Your task to perform on an android device: toggle translation in the chrome app Image 0: 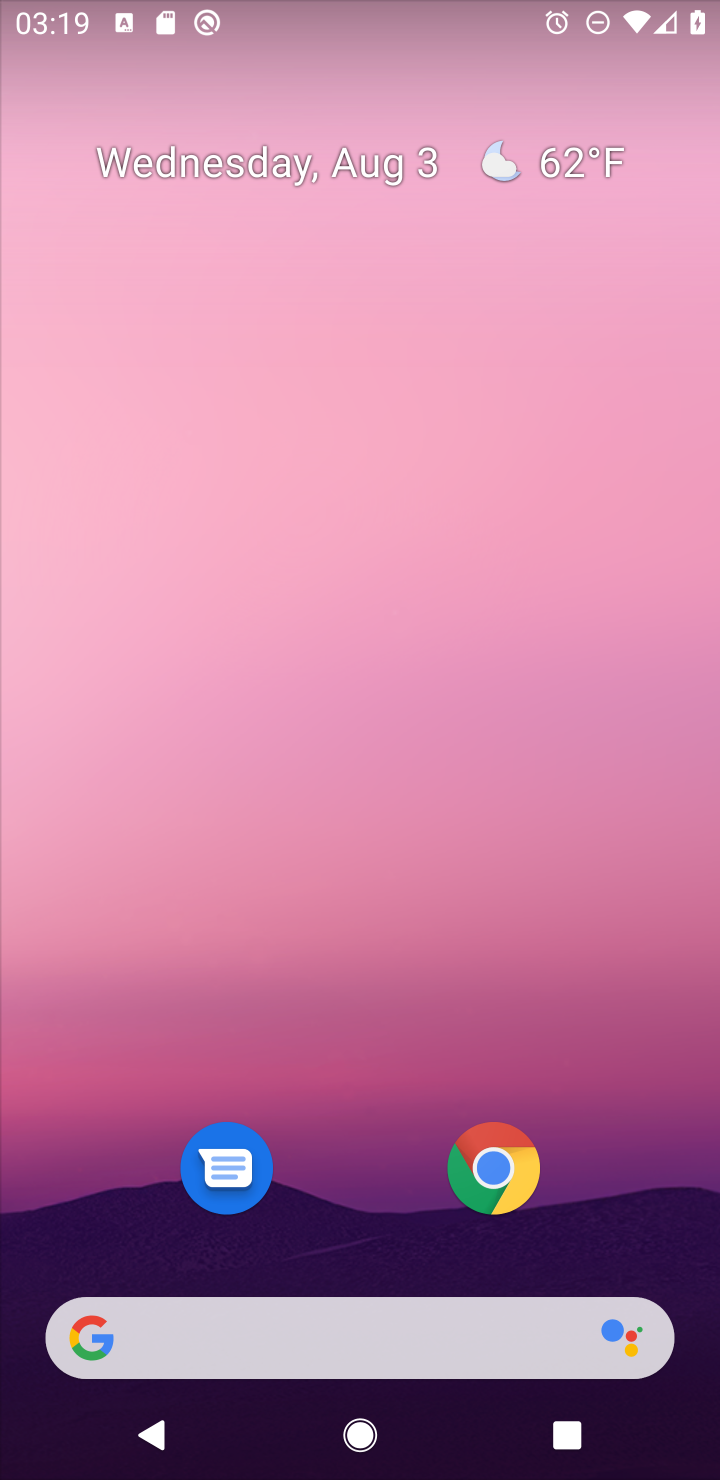
Step 0: click (496, 1171)
Your task to perform on an android device: toggle translation in the chrome app Image 1: 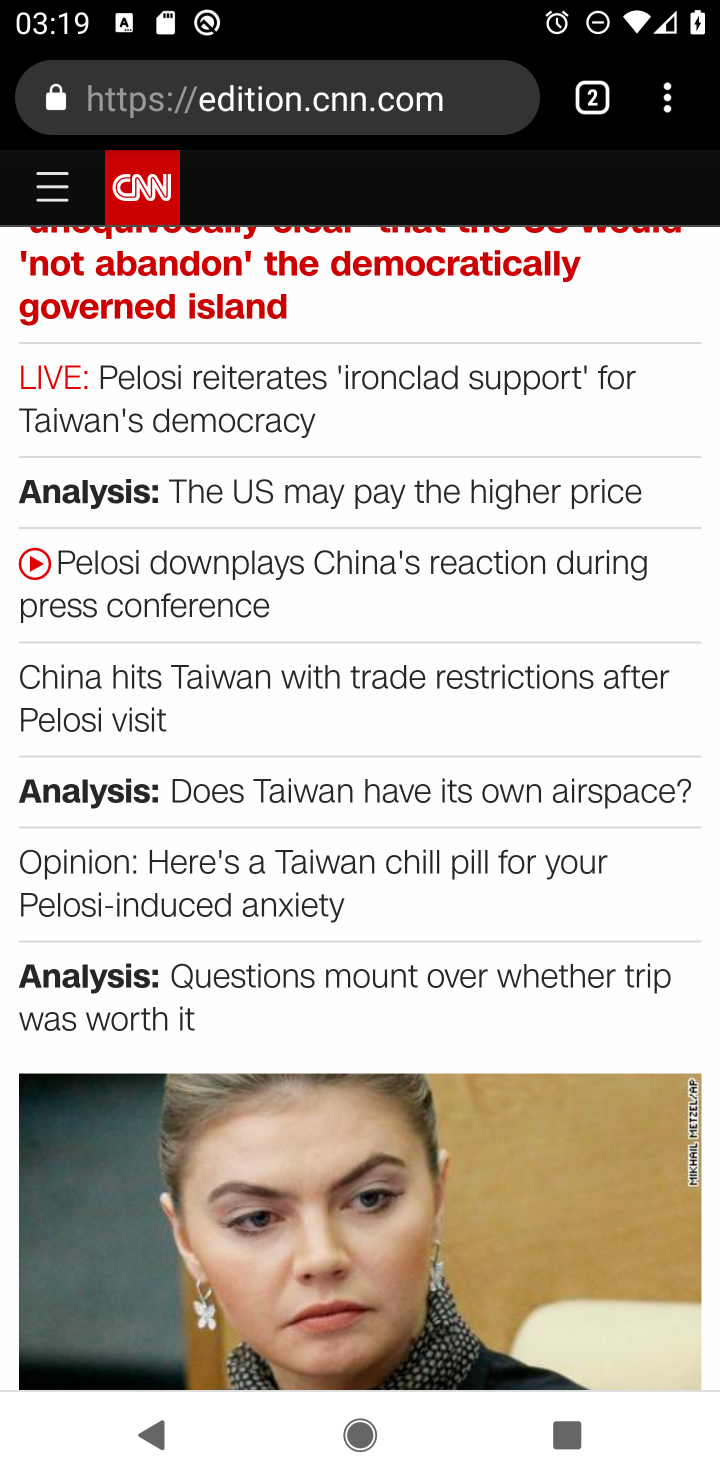
Step 1: click (659, 111)
Your task to perform on an android device: toggle translation in the chrome app Image 2: 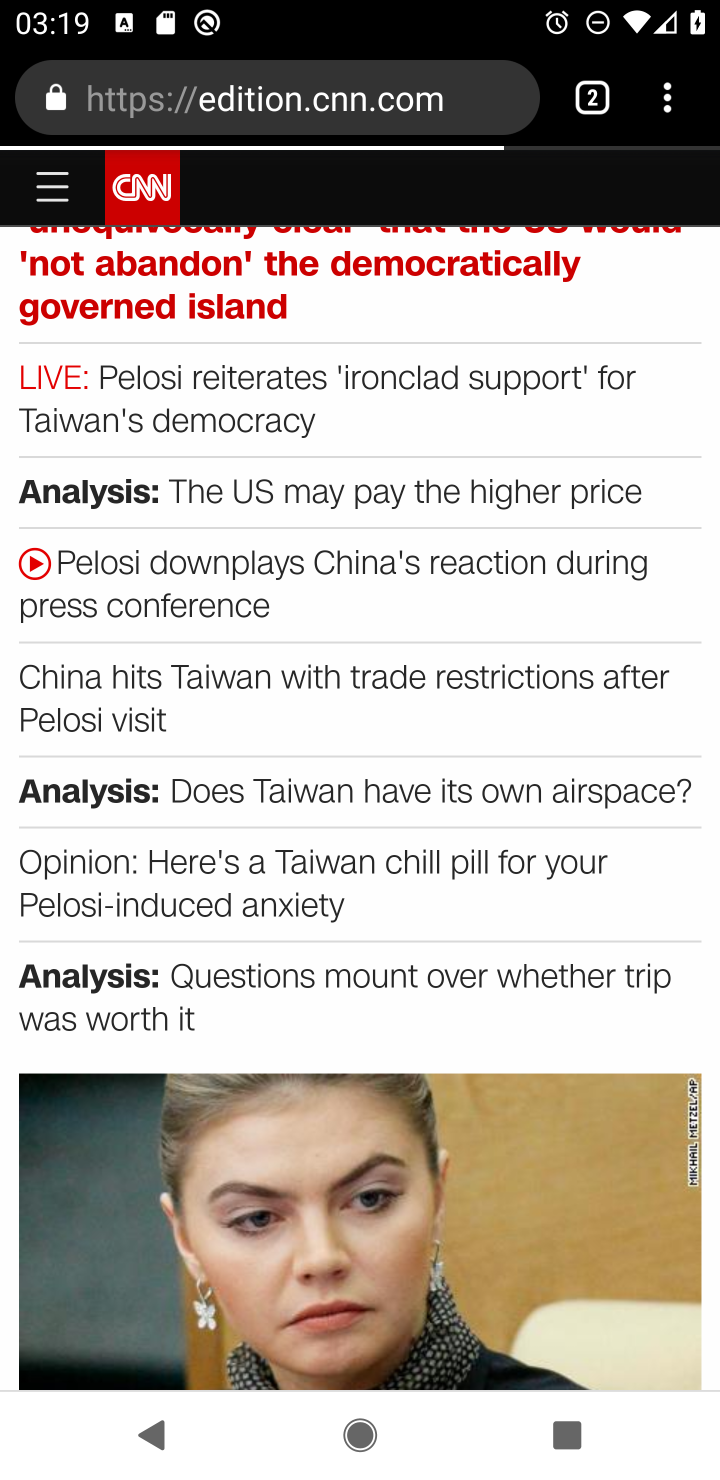
Step 2: click (661, 117)
Your task to perform on an android device: toggle translation in the chrome app Image 3: 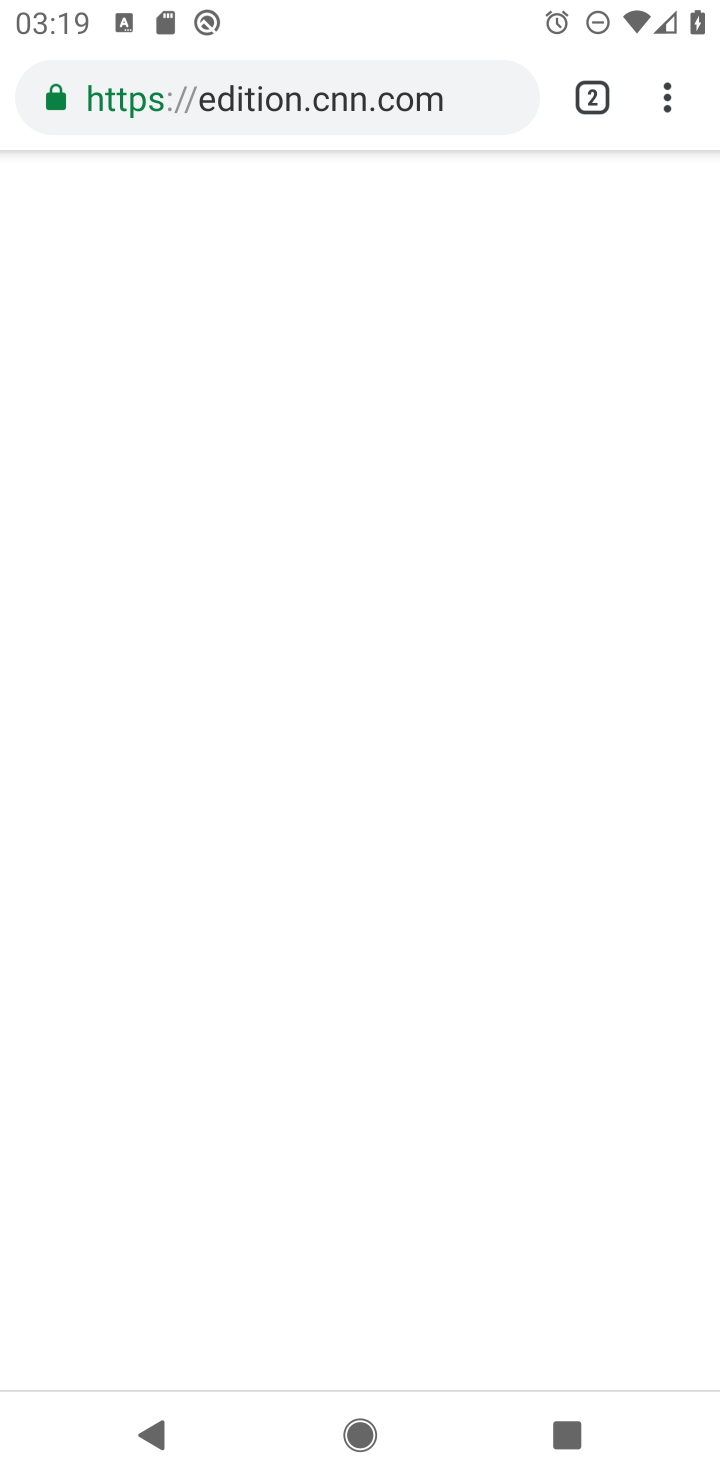
Step 3: click (668, 117)
Your task to perform on an android device: toggle translation in the chrome app Image 4: 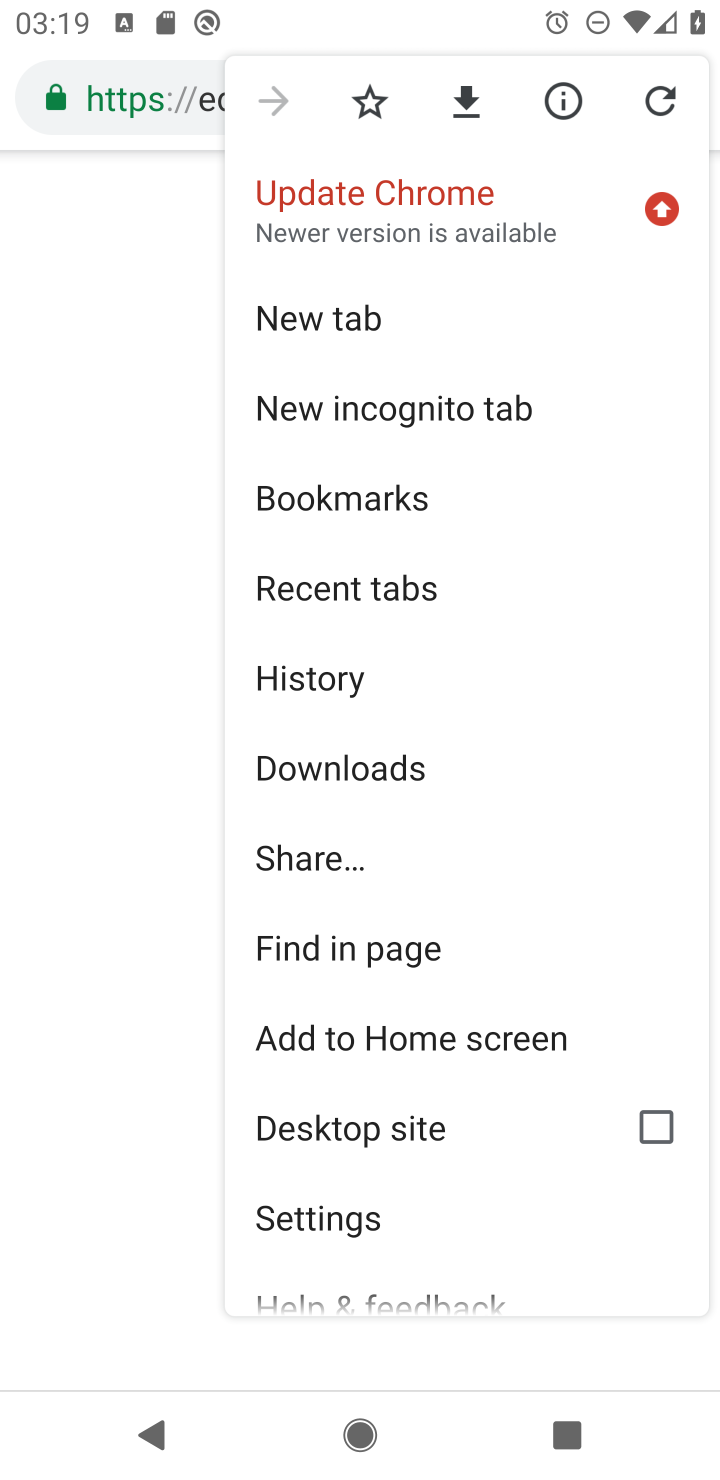
Step 4: click (341, 1218)
Your task to perform on an android device: toggle translation in the chrome app Image 5: 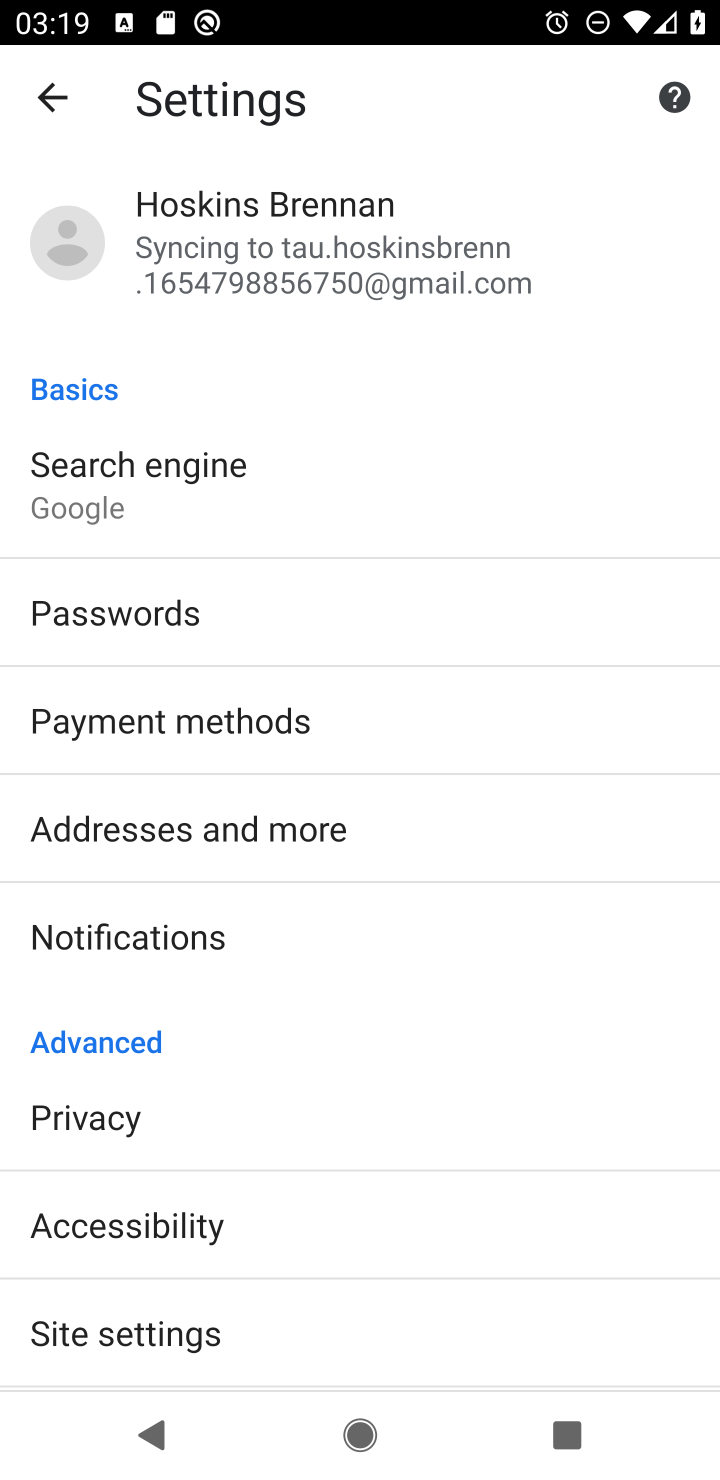
Step 5: drag from (388, 1336) to (379, 543)
Your task to perform on an android device: toggle translation in the chrome app Image 6: 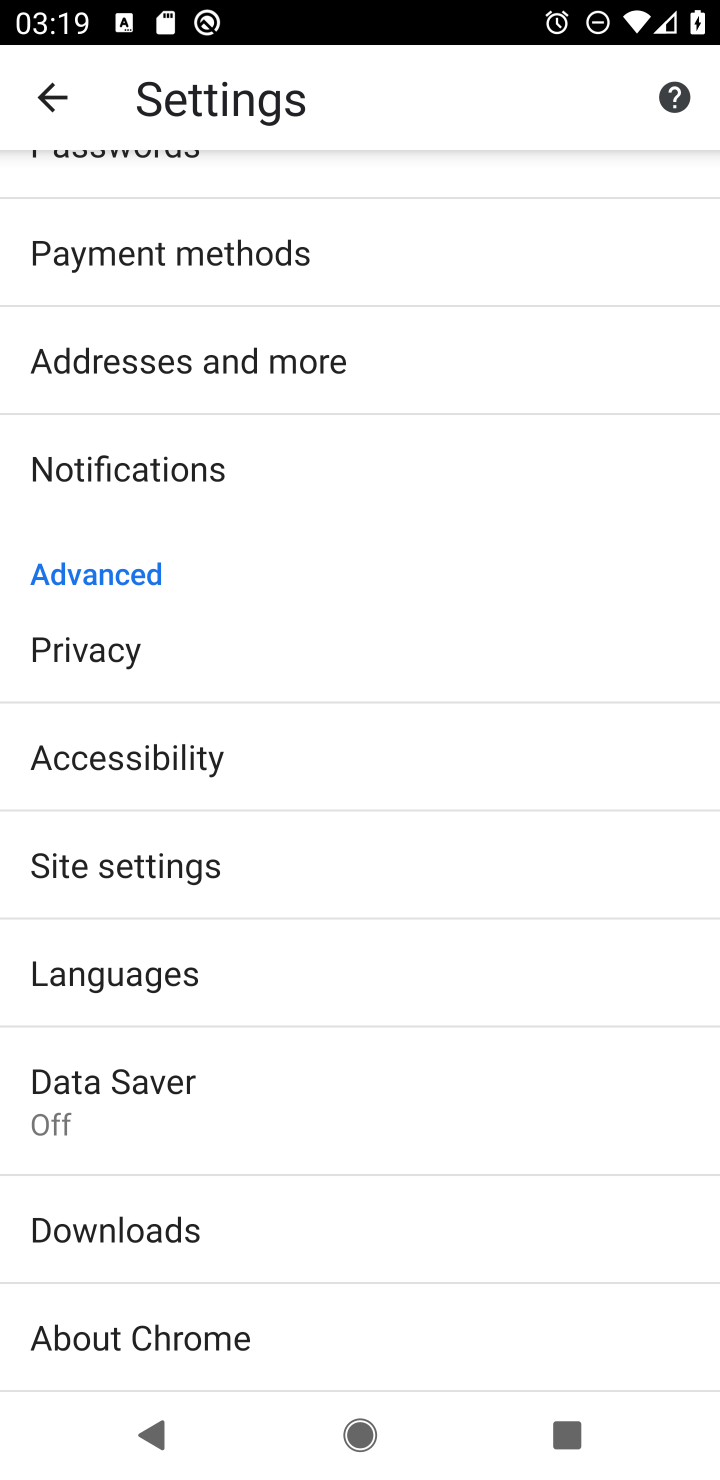
Step 6: click (103, 973)
Your task to perform on an android device: toggle translation in the chrome app Image 7: 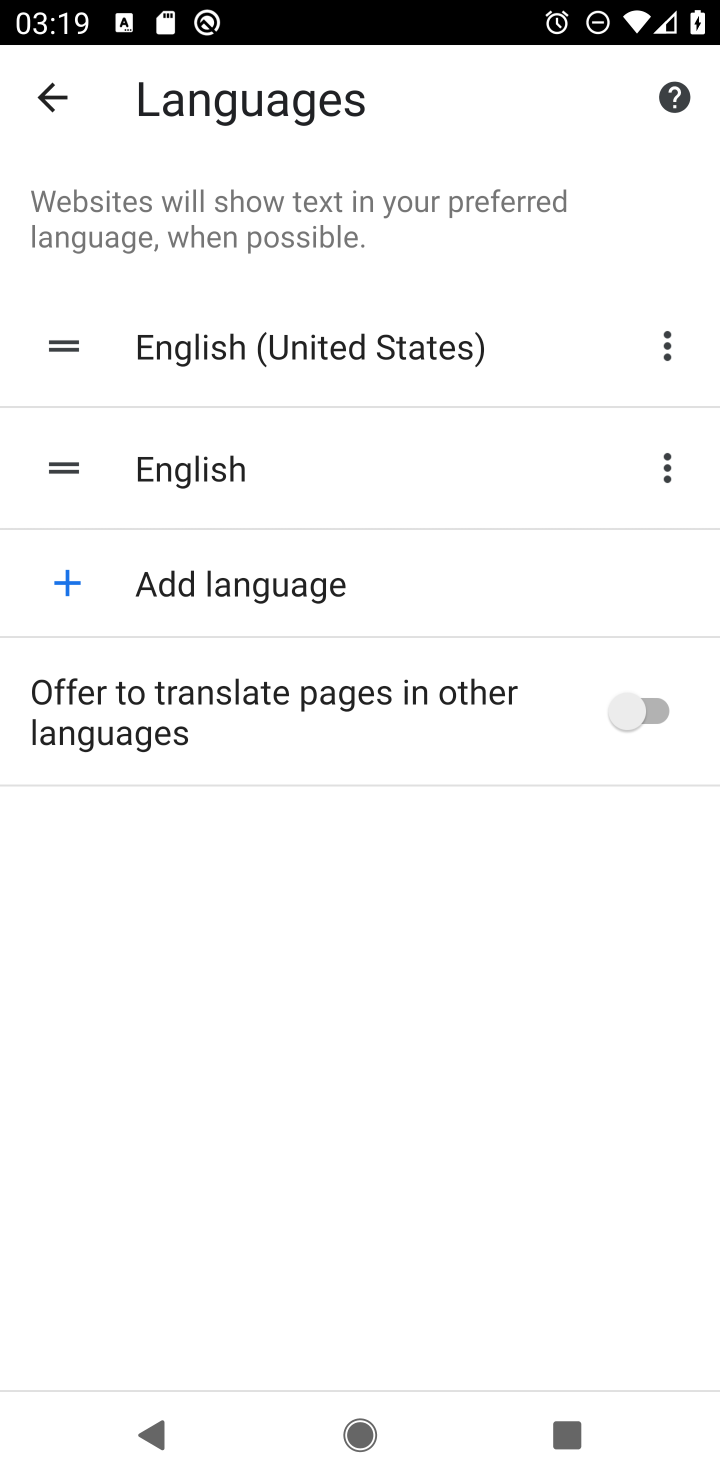
Step 7: click (664, 709)
Your task to perform on an android device: toggle translation in the chrome app Image 8: 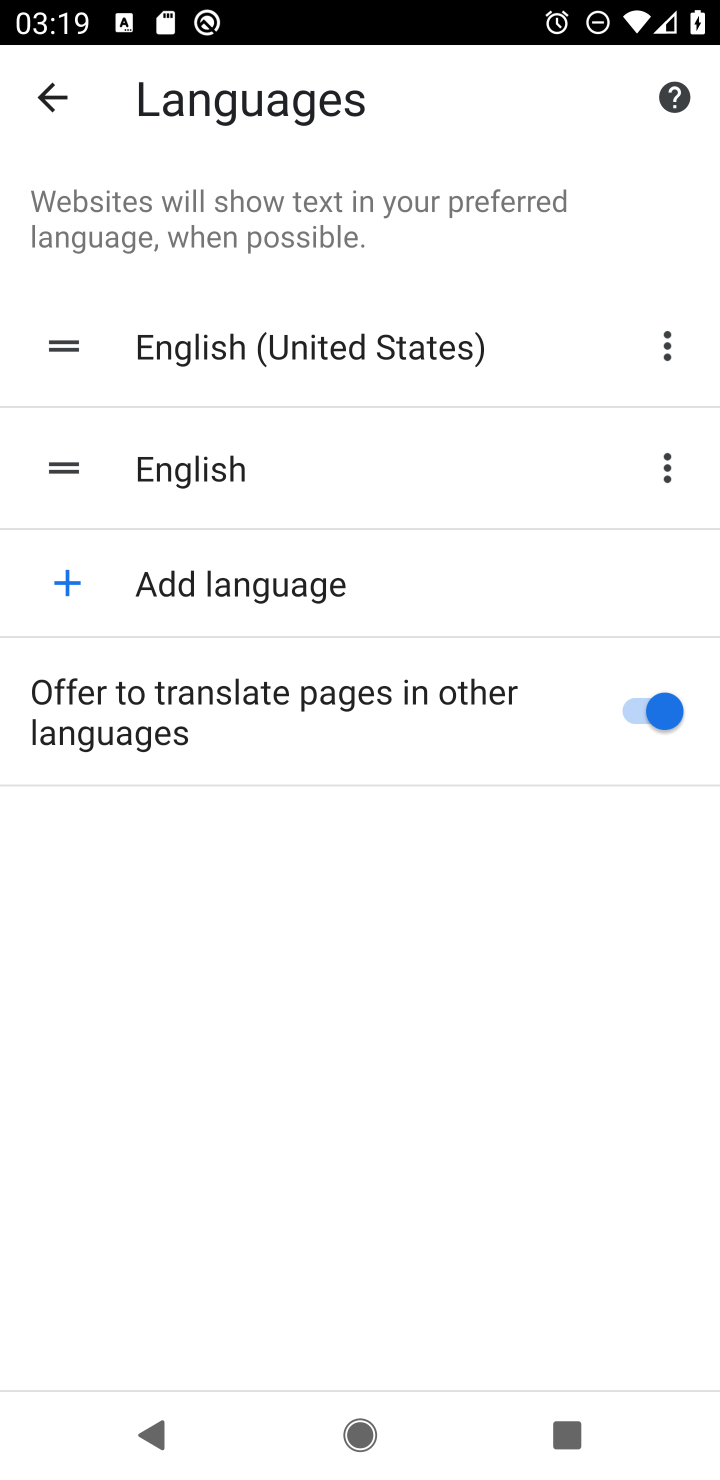
Step 8: task complete